Your task to perform on an android device: toggle location history Image 0: 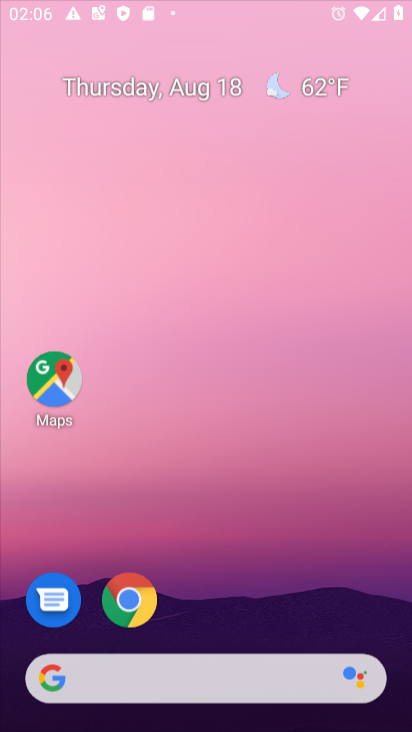
Step 0: press home button
Your task to perform on an android device: toggle location history Image 1: 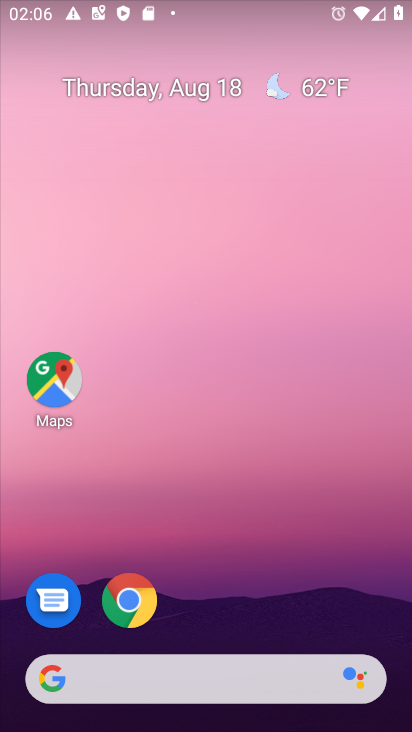
Step 1: drag from (285, 576) to (292, 33)
Your task to perform on an android device: toggle location history Image 2: 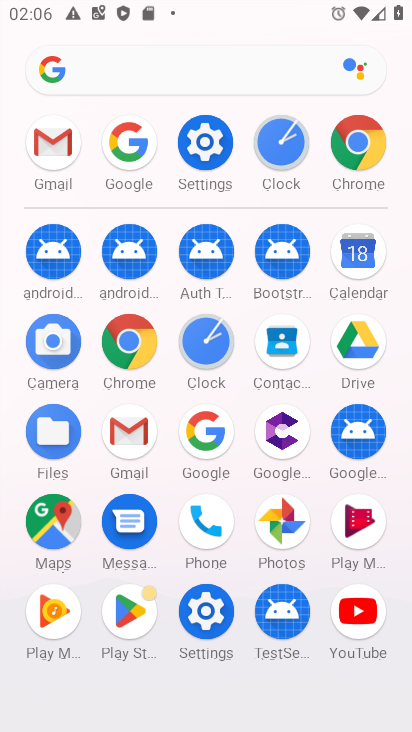
Step 2: click (211, 152)
Your task to perform on an android device: toggle location history Image 3: 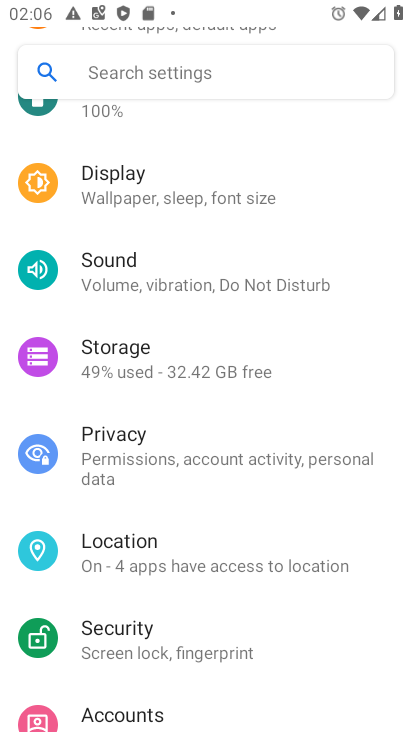
Step 3: click (243, 558)
Your task to perform on an android device: toggle location history Image 4: 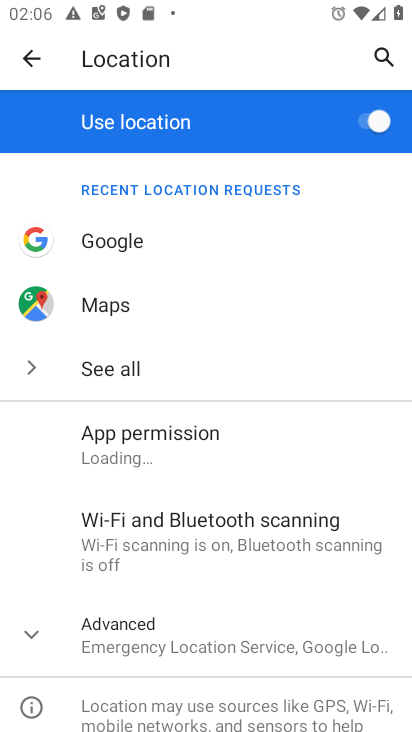
Step 4: drag from (221, 371) to (237, 57)
Your task to perform on an android device: toggle location history Image 5: 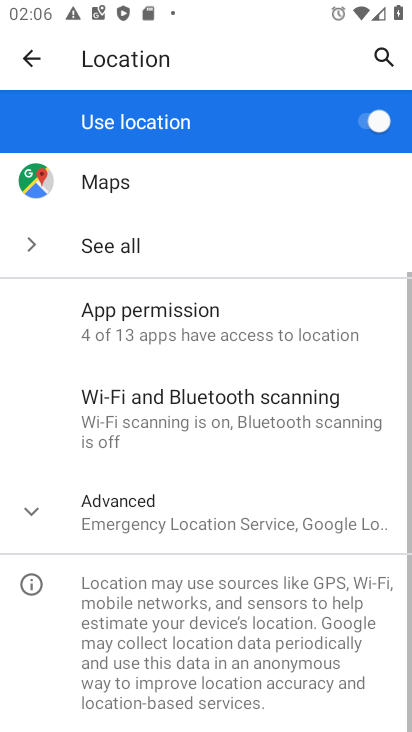
Step 5: click (35, 515)
Your task to perform on an android device: toggle location history Image 6: 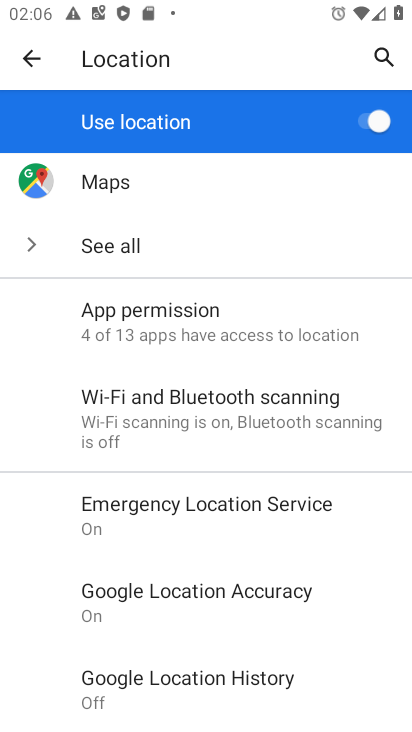
Step 6: click (225, 689)
Your task to perform on an android device: toggle location history Image 7: 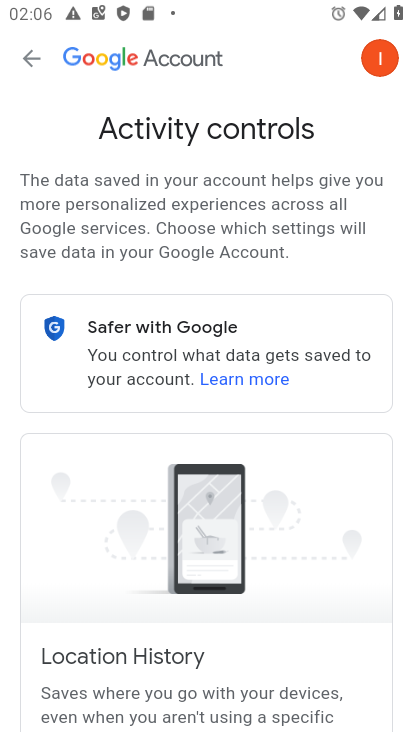
Step 7: drag from (340, 426) to (340, 107)
Your task to perform on an android device: toggle location history Image 8: 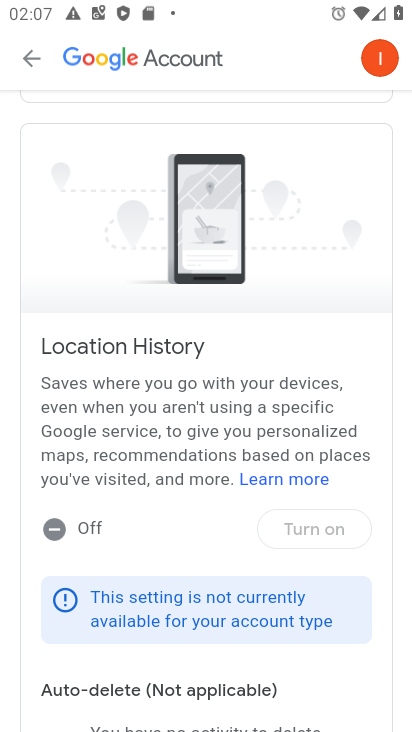
Step 8: click (60, 529)
Your task to perform on an android device: toggle location history Image 9: 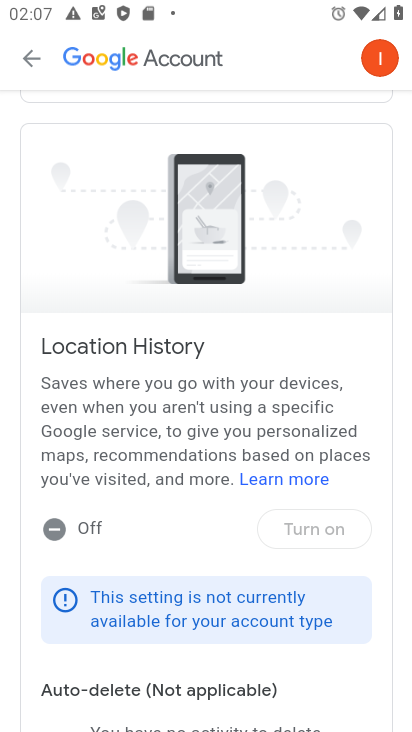
Step 9: click (330, 524)
Your task to perform on an android device: toggle location history Image 10: 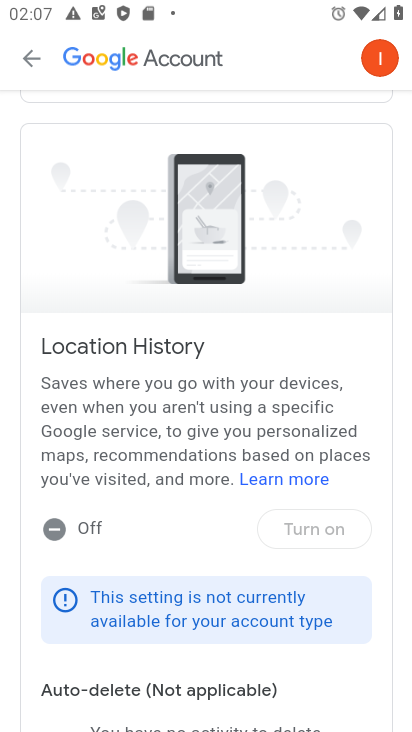
Step 10: task complete